Your task to perform on an android device: Open Chrome and go to settings Image 0: 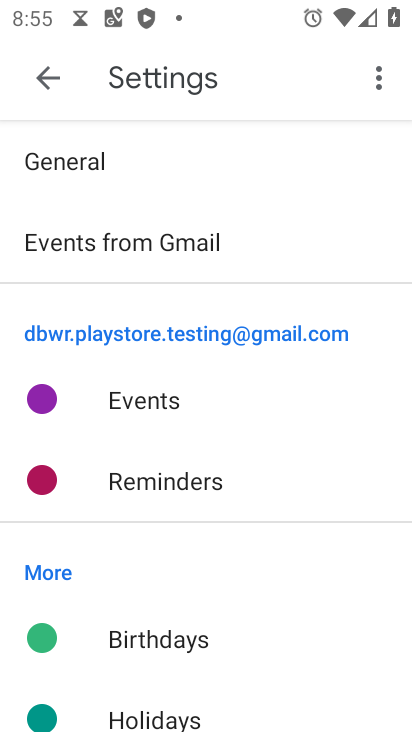
Step 0: press back button
Your task to perform on an android device: Open Chrome and go to settings Image 1: 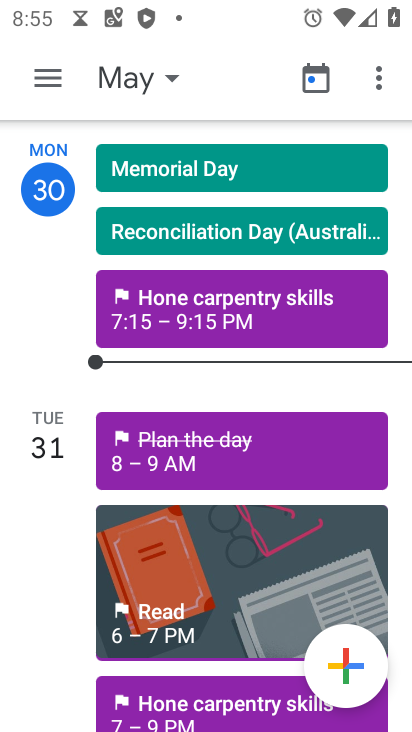
Step 1: press home button
Your task to perform on an android device: Open Chrome and go to settings Image 2: 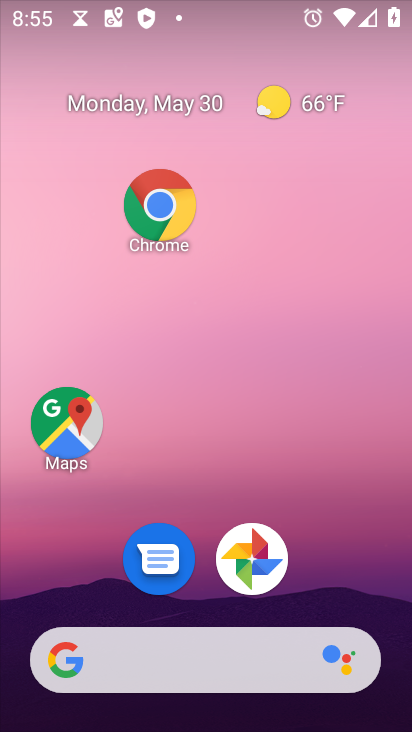
Step 2: drag from (275, 692) to (221, 158)
Your task to perform on an android device: Open Chrome and go to settings Image 3: 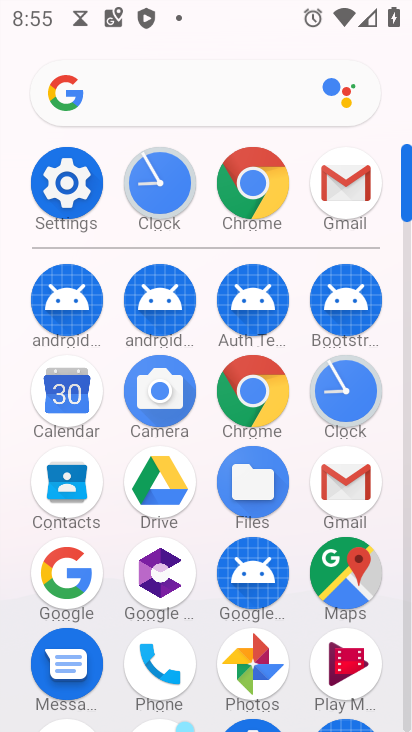
Step 3: click (62, 185)
Your task to perform on an android device: Open Chrome and go to settings Image 4: 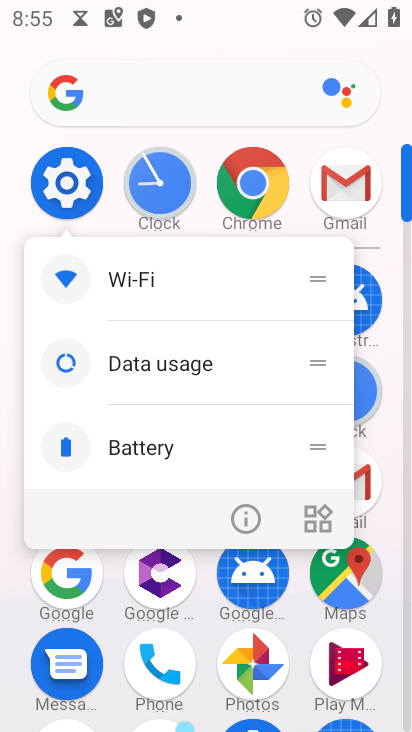
Step 4: click (61, 184)
Your task to perform on an android device: Open Chrome and go to settings Image 5: 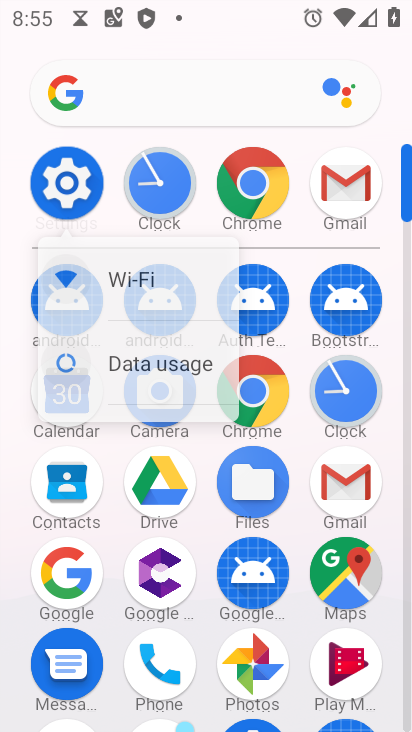
Step 5: click (61, 184)
Your task to perform on an android device: Open Chrome and go to settings Image 6: 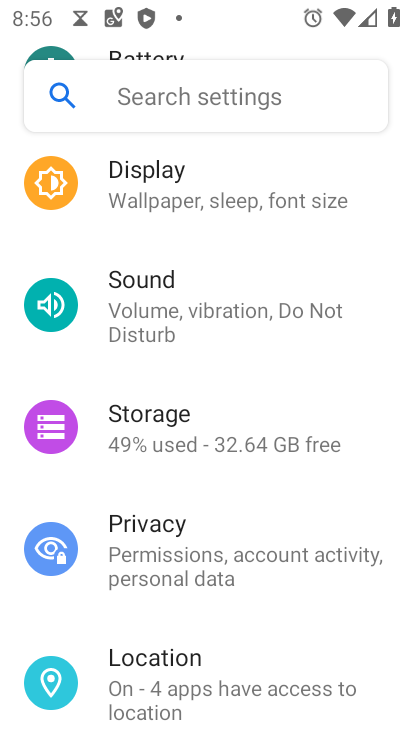
Step 6: drag from (159, 227) to (199, 500)
Your task to perform on an android device: Open Chrome and go to settings Image 7: 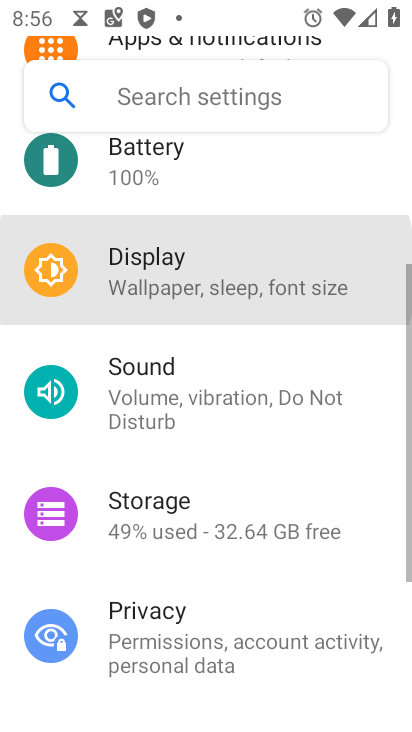
Step 7: drag from (178, 299) to (237, 619)
Your task to perform on an android device: Open Chrome and go to settings Image 8: 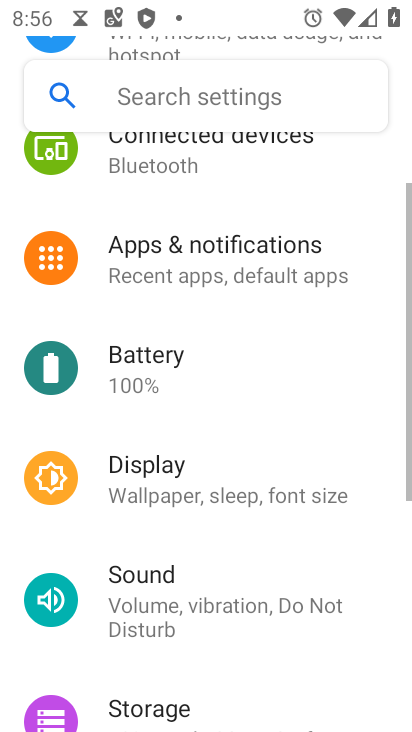
Step 8: drag from (197, 334) to (230, 581)
Your task to perform on an android device: Open Chrome and go to settings Image 9: 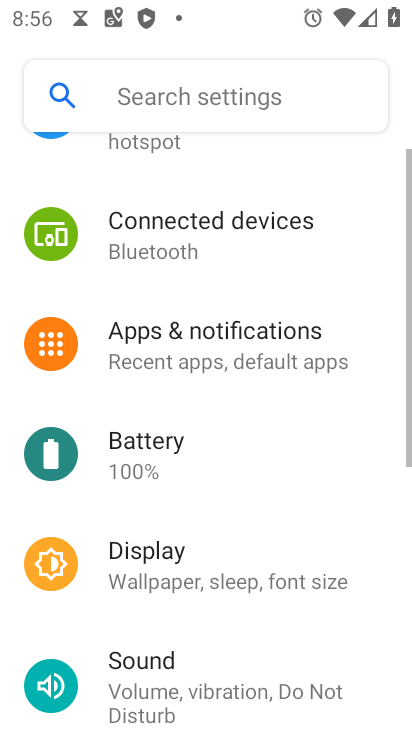
Step 9: drag from (203, 303) to (243, 598)
Your task to perform on an android device: Open Chrome and go to settings Image 10: 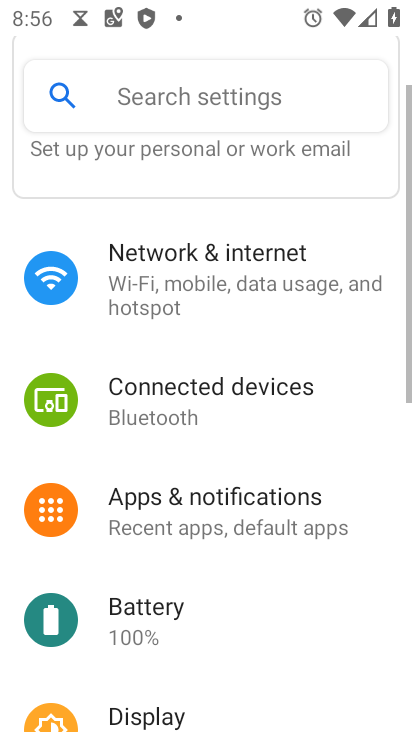
Step 10: drag from (197, 343) to (217, 660)
Your task to perform on an android device: Open Chrome and go to settings Image 11: 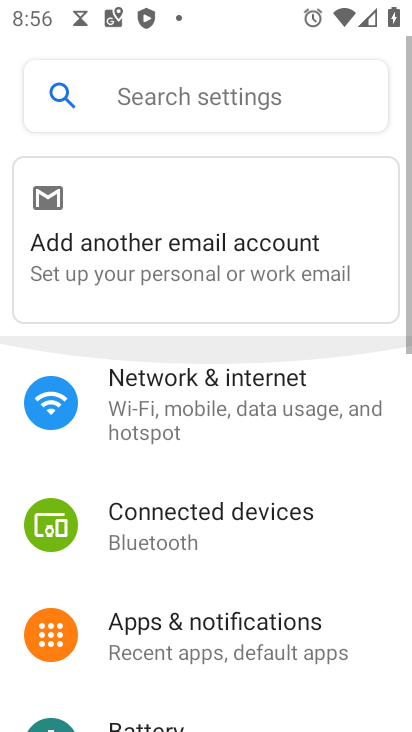
Step 11: drag from (133, 343) to (184, 664)
Your task to perform on an android device: Open Chrome and go to settings Image 12: 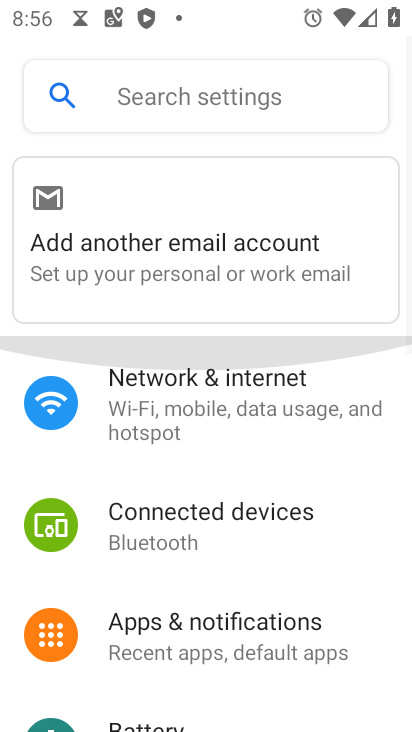
Step 12: drag from (132, 333) to (170, 565)
Your task to perform on an android device: Open Chrome and go to settings Image 13: 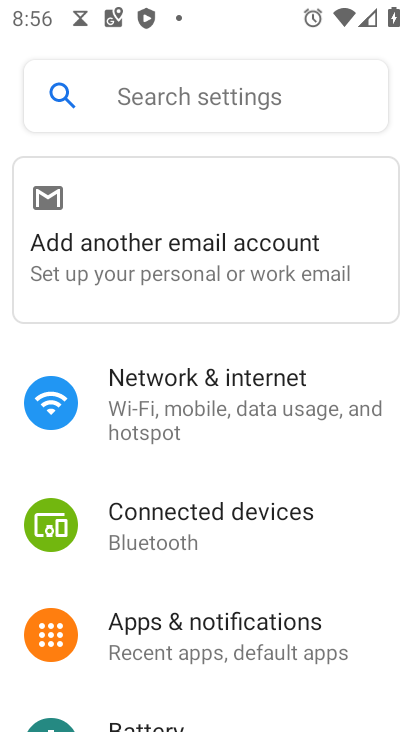
Step 13: press home button
Your task to perform on an android device: Open Chrome and go to settings Image 14: 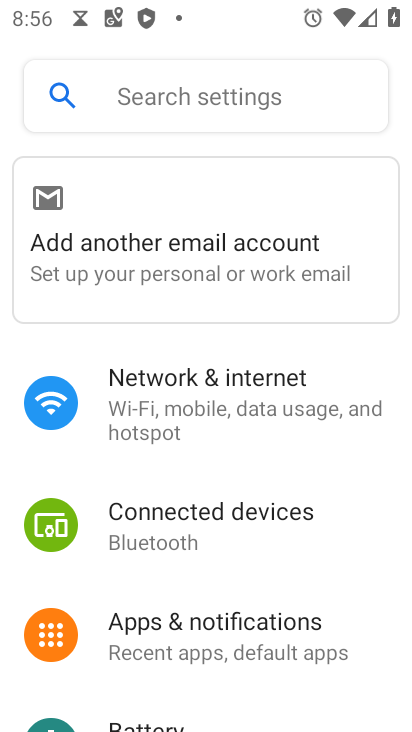
Step 14: press home button
Your task to perform on an android device: Open Chrome and go to settings Image 15: 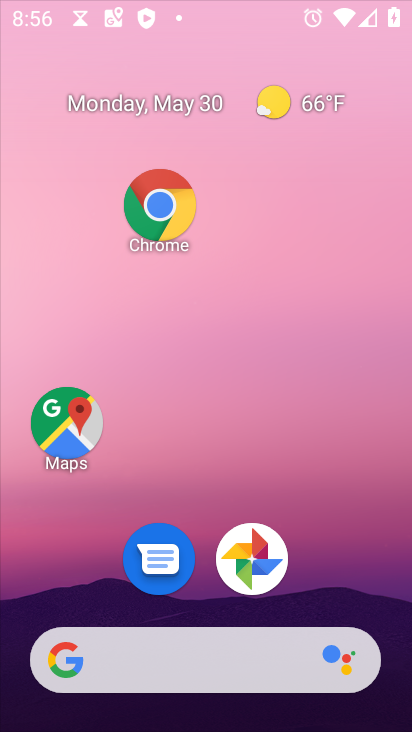
Step 15: press home button
Your task to perform on an android device: Open Chrome and go to settings Image 16: 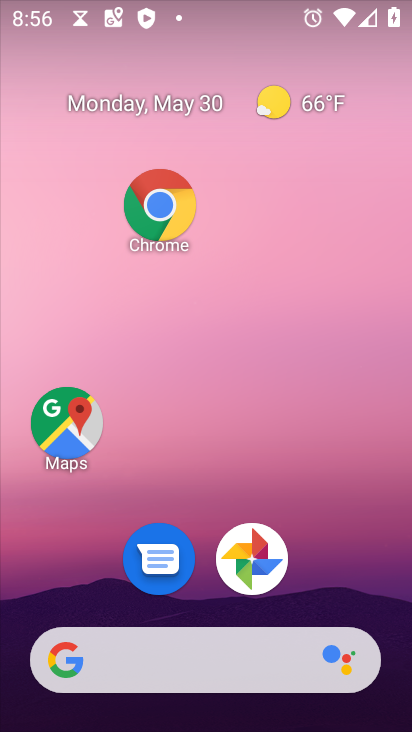
Step 16: drag from (203, 694) to (115, 140)
Your task to perform on an android device: Open Chrome and go to settings Image 17: 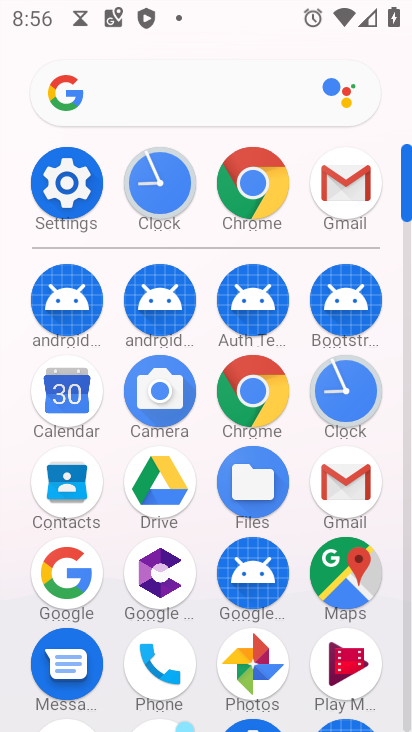
Step 17: click (254, 185)
Your task to perform on an android device: Open Chrome and go to settings Image 18: 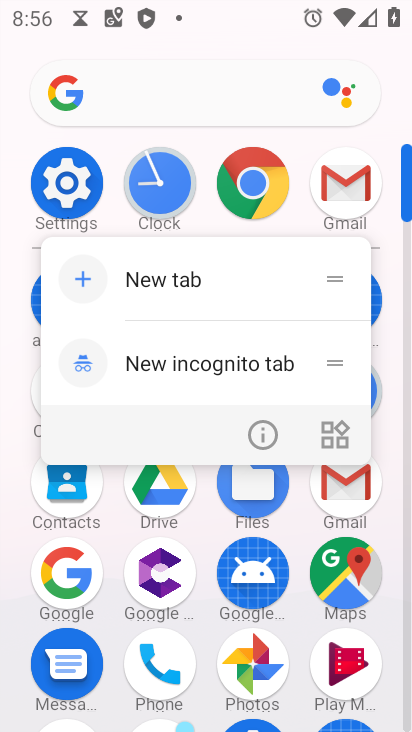
Step 18: click (255, 182)
Your task to perform on an android device: Open Chrome and go to settings Image 19: 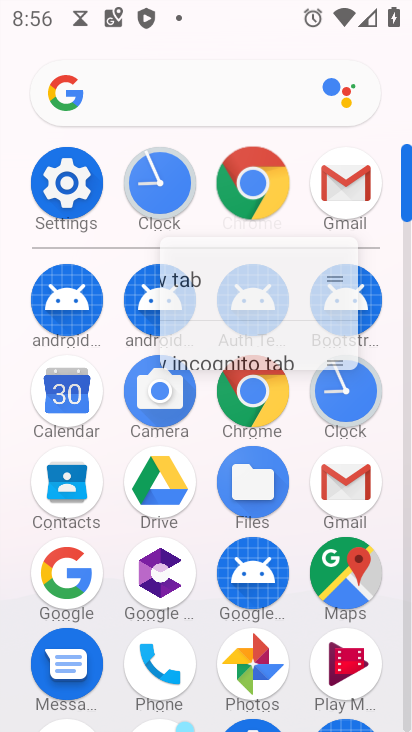
Step 19: click (255, 182)
Your task to perform on an android device: Open Chrome and go to settings Image 20: 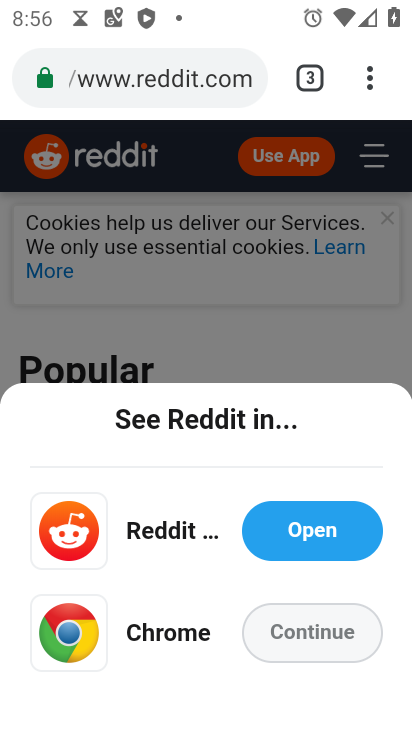
Step 20: drag from (365, 78) to (83, 630)
Your task to perform on an android device: Open Chrome and go to settings Image 21: 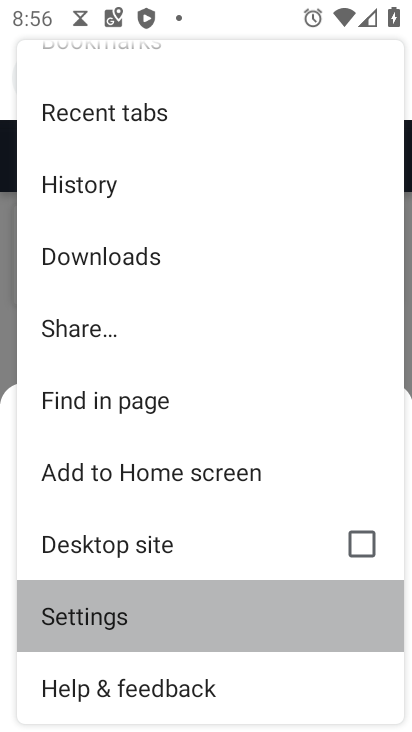
Step 21: click (85, 630)
Your task to perform on an android device: Open Chrome and go to settings Image 22: 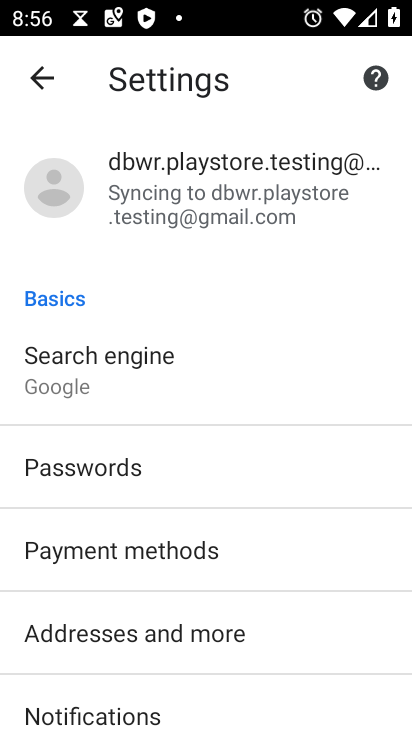
Step 22: task complete